Your task to perform on an android device: change text size in settings app Image 0: 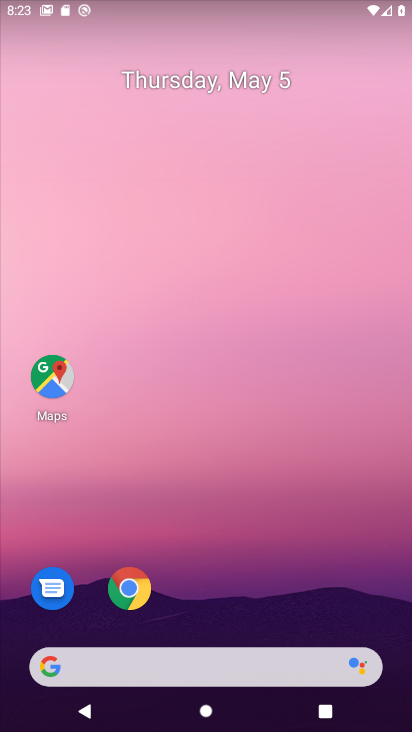
Step 0: drag from (211, 631) to (239, 27)
Your task to perform on an android device: change text size in settings app Image 1: 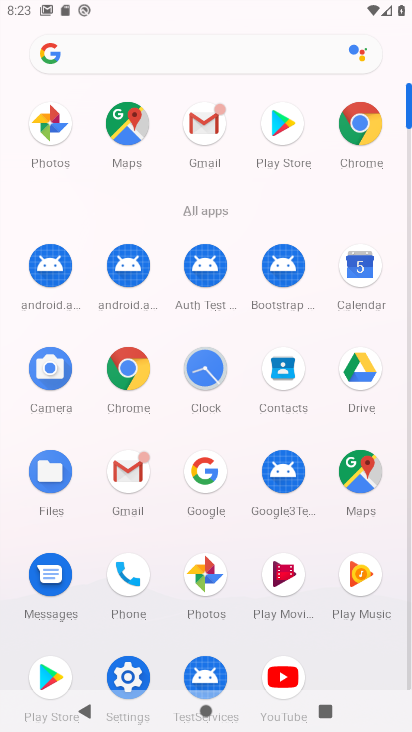
Step 1: click (126, 669)
Your task to perform on an android device: change text size in settings app Image 2: 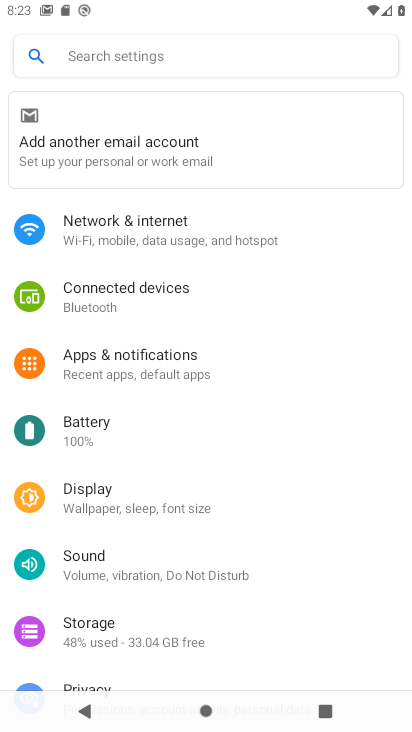
Step 2: click (122, 488)
Your task to perform on an android device: change text size in settings app Image 3: 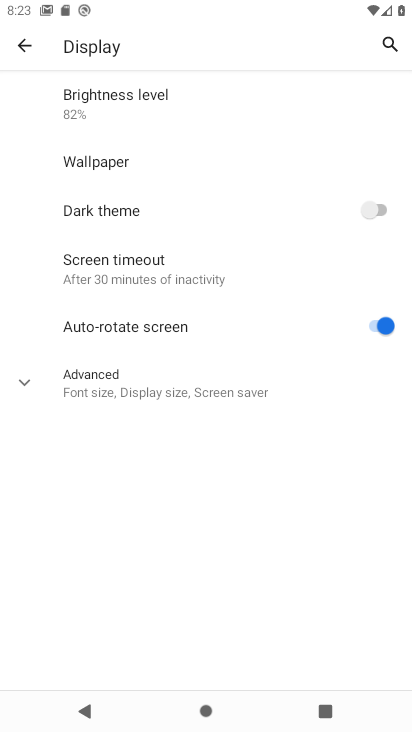
Step 3: click (66, 384)
Your task to perform on an android device: change text size in settings app Image 4: 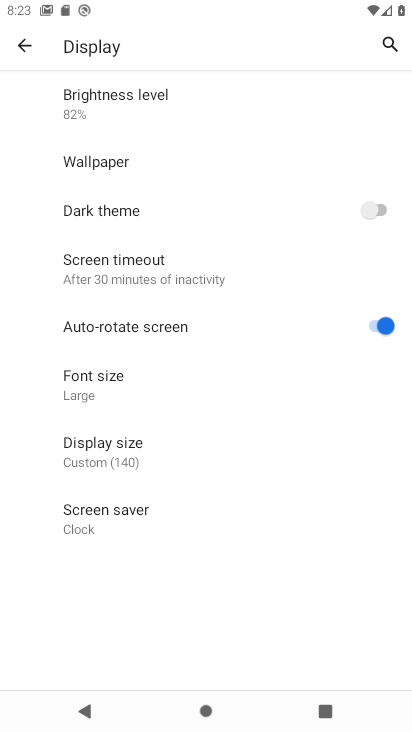
Step 4: click (46, 378)
Your task to perform on an android device: change text size in settings app Image 5: 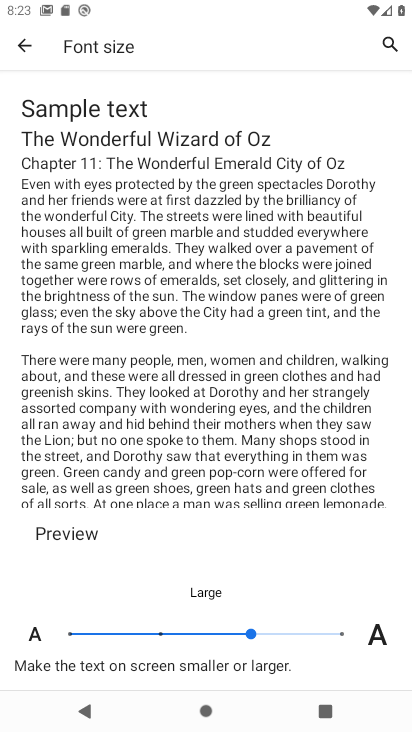
Step 5: click (156, 637)
Your task to perform on an android device: change text size in settings app Image 6: 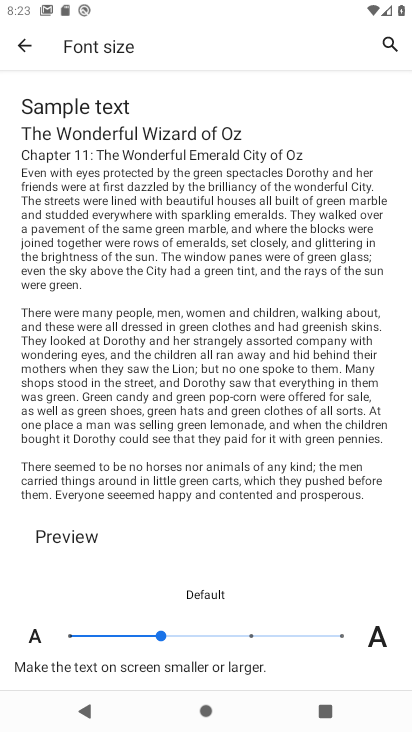
Step 6: task complete